Your task to perform on an android device: Open sound settings Image 0: 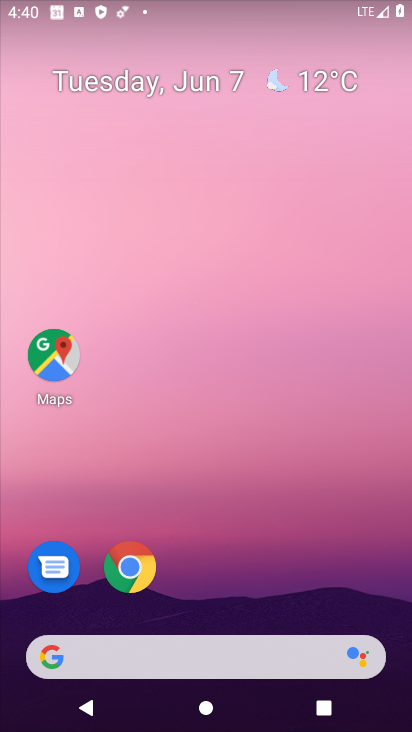
Step 0: drag from (313, 569) to (349, 118)
Your task to perform on an android device: Open sound settings Image 1: 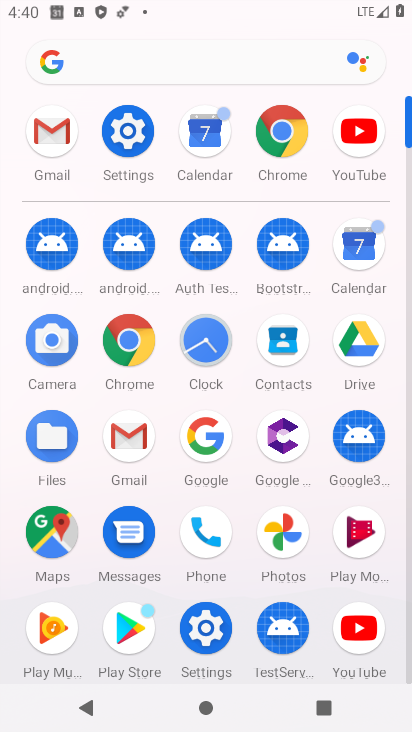
Step 1: click (110, 138)
Your task to perform on an android device: Open sound settings Image 2: 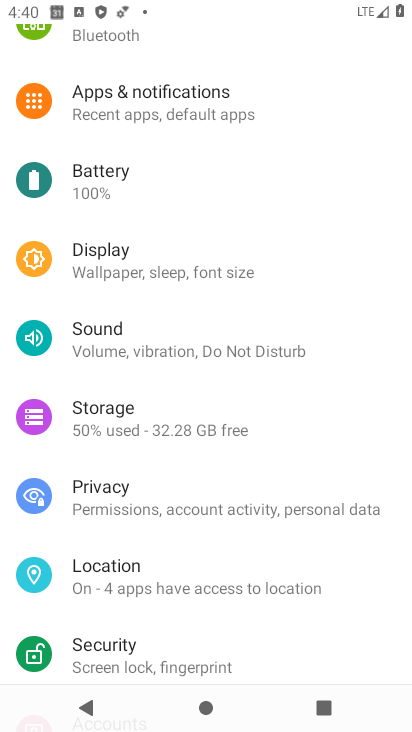
Step 2: click (138, 349)
Your task to perform on an android device: Open sound settings Image 3: 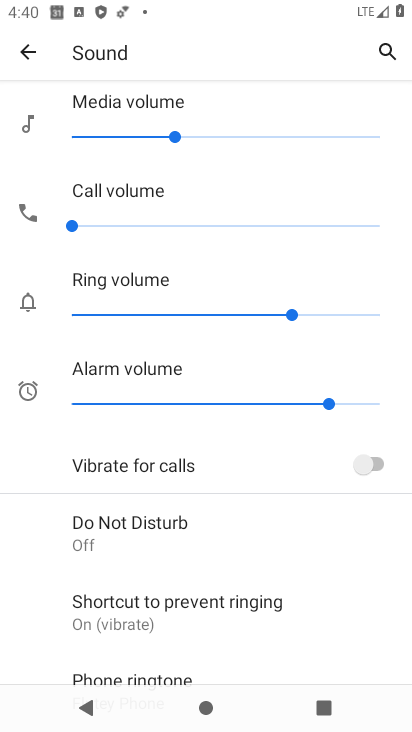
Step 3: task complete